Your task to perform on an android device: open a bookmark in the chrome app Image 0: 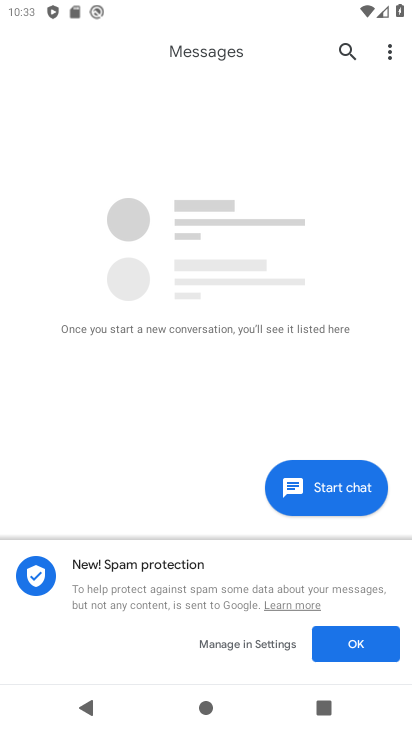
Step 0: press home button
Your task to perform on an android device: open a bookmark in the chrome app Image 1: 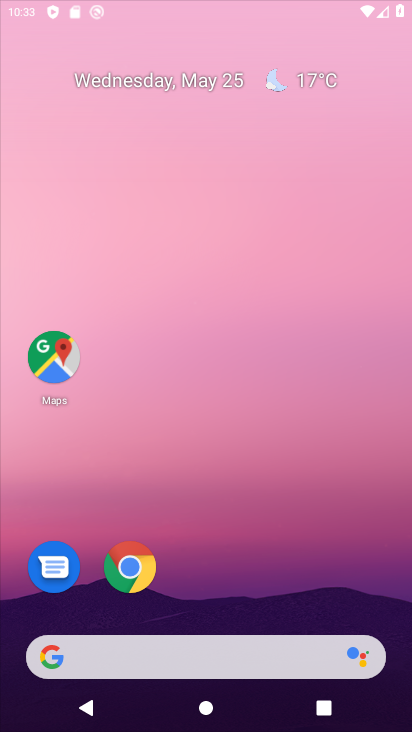
Step 1: drag from (358, 604) to (259, 76)
Your task to perform on an android device: open a bookmark in the chrome app Image 2: 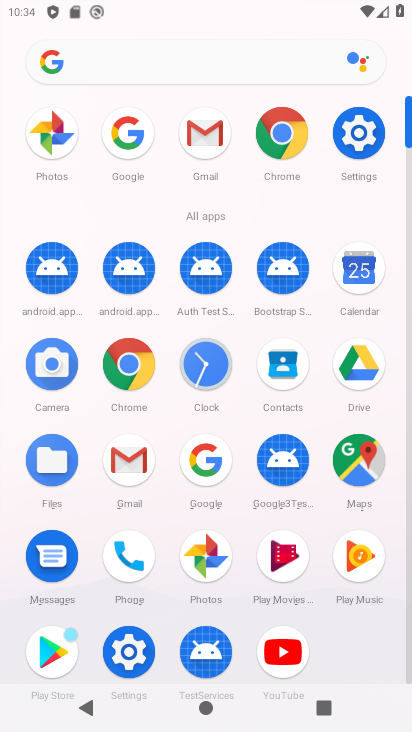
Step 2: click (278, 146)
Your task to perform on an android device: open a bookmark in the chrome app Image 3: 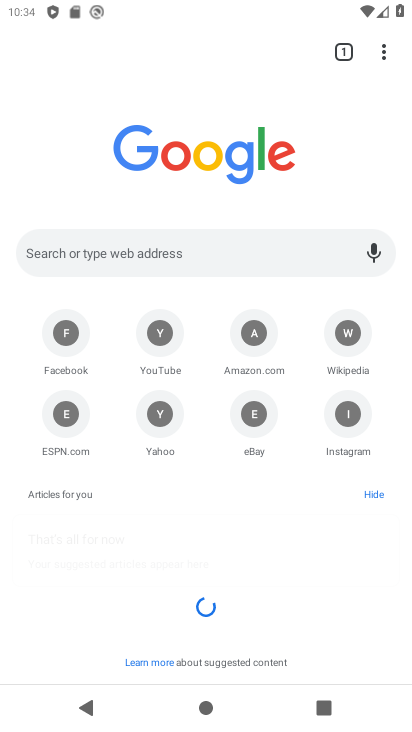
Step 3: click (385, 43)
Your task to perform on an android device: open a bookmark in the chrome app Image 4: 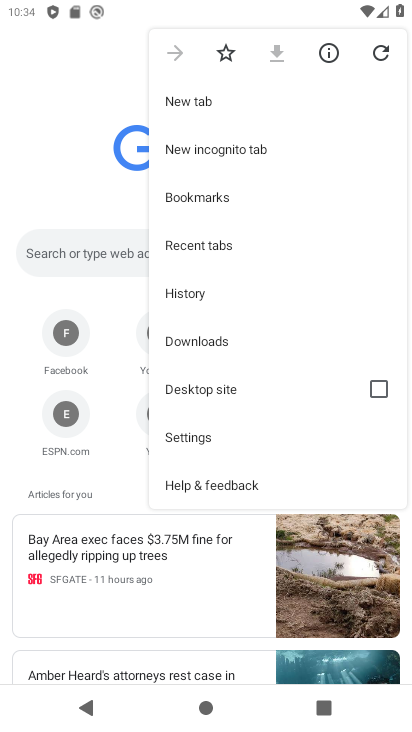
Step 4: click (230, 193)
Your task to perform on an android device: open a bookmark in the chrome app Image 5: 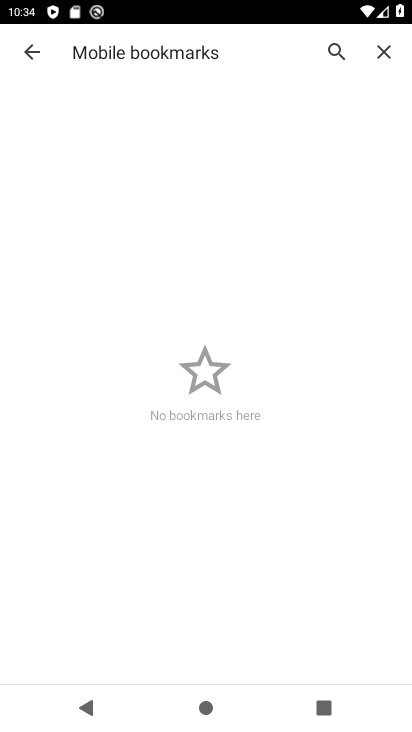
Step 5: task complete